Your task to perform on an android device: Show me recent news Image 0: 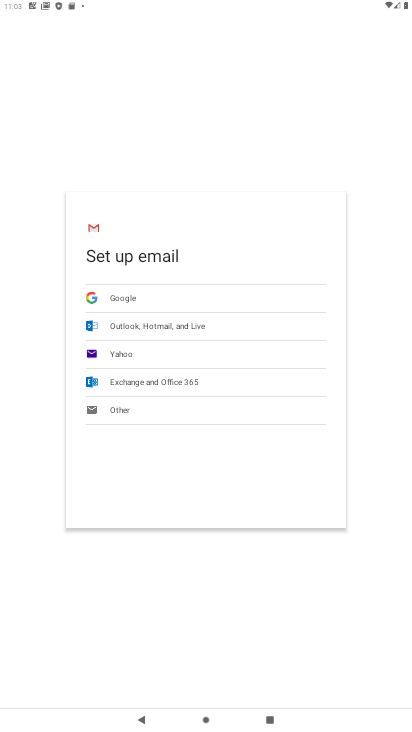
Step 0: press home button
Your task to perform on an android device: Show me recent news Image 1: 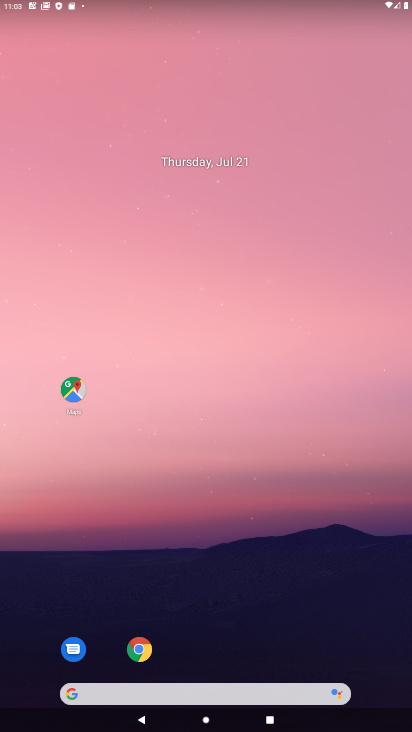
Step 1: click (149, 692)
Your task to perform on an android device: Show me recent news Image 2: 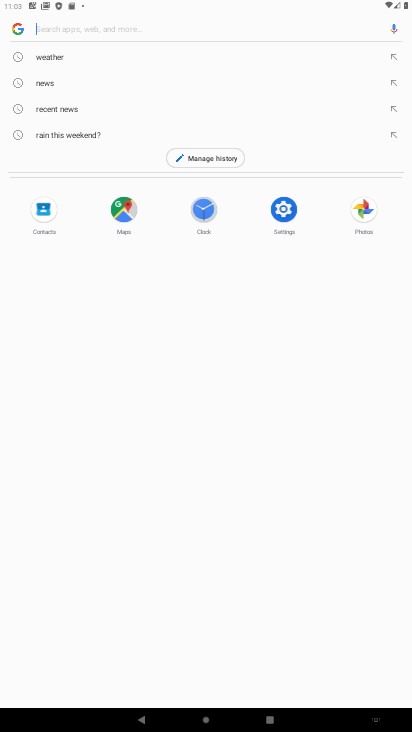
Step 2: type "recent news"
Your task to perform on an android device: Show me recent news Image 3: 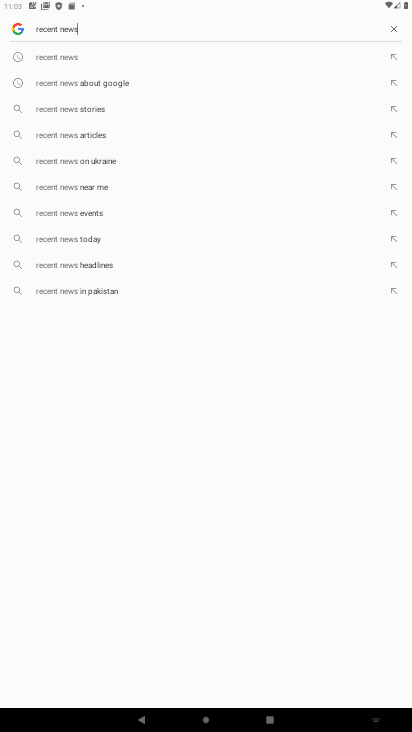
Step 3: click (179, 52)
Your task to perform on an android device: Show me recent news Image 4: 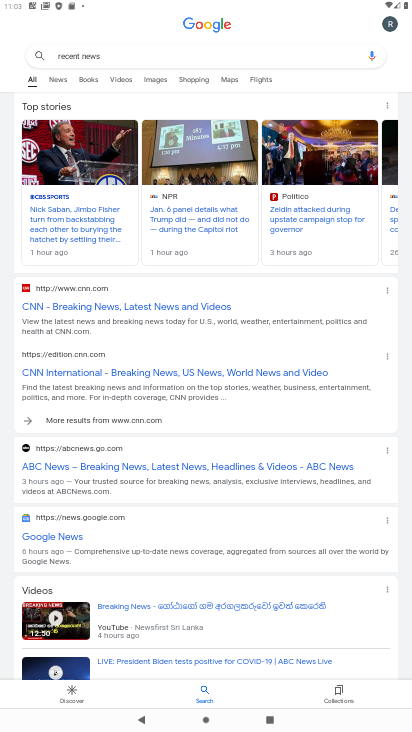
Step 4: click (52, 81)
Your task to perform on an android device: Show me recent news Image 5: 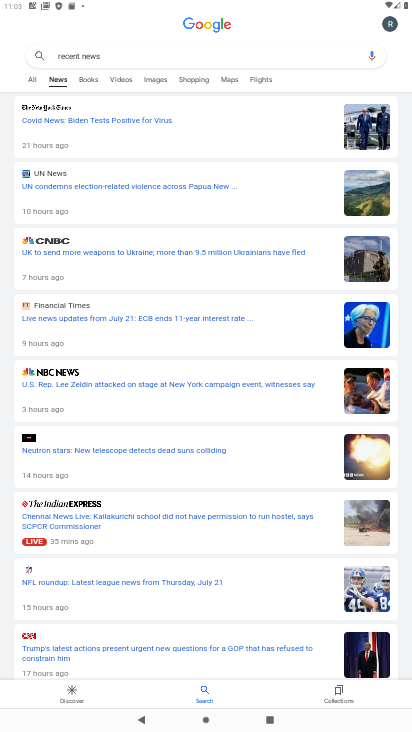
Step 5: task complete